Your task to perform on an android device: set an alarm Image 0: 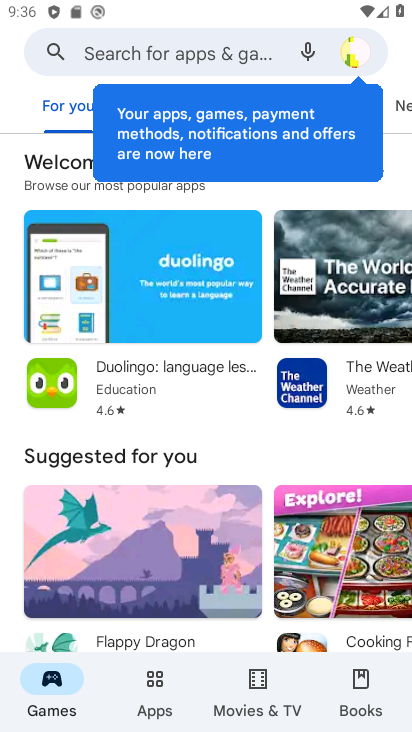
Step 0: press home button
Your task to perform on an android device: set an alarm Image 1: 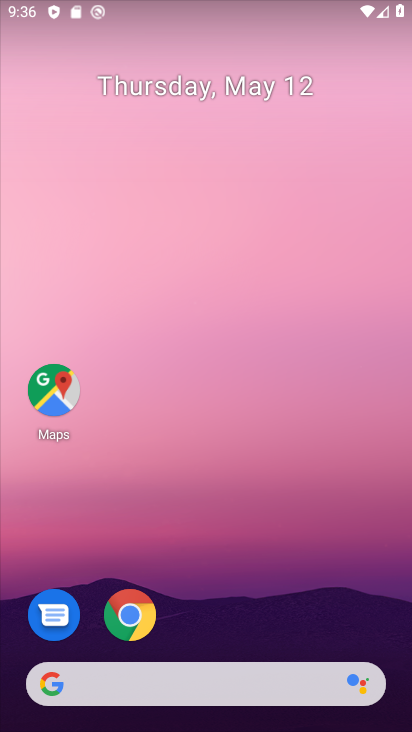
Step 1: drag from (284, 480) to (275, 108)
Your task to perform on an android device: set an alarm Image 2: 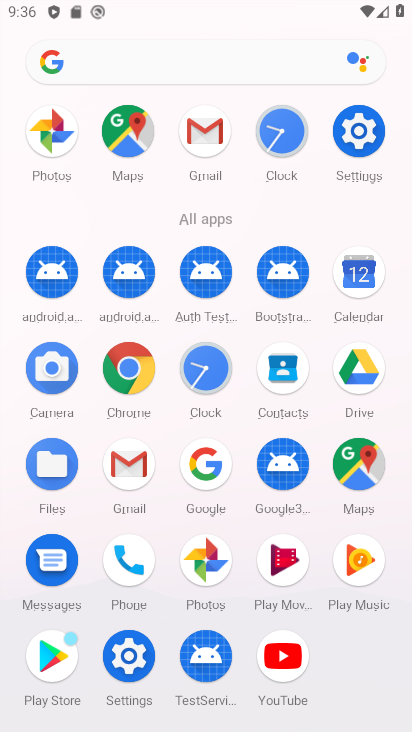
Step 2: click (211, 367)
Your task to perform on an android device: set an alarm Image 3: 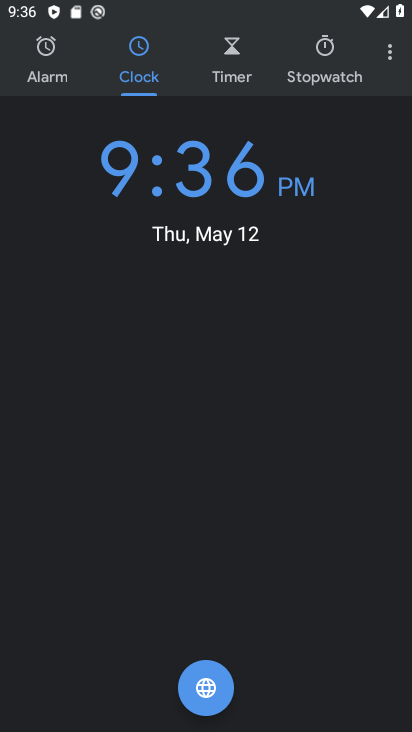
Step 3: click (61, 48)
Your task to perform on an android device: set an alarm Image 4: 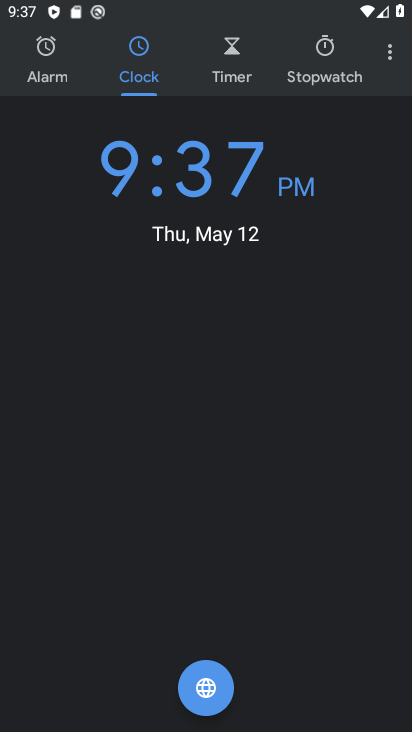
Step 4: click (57, 53)
Your task to perform on an android device: set an alarm Image 5: 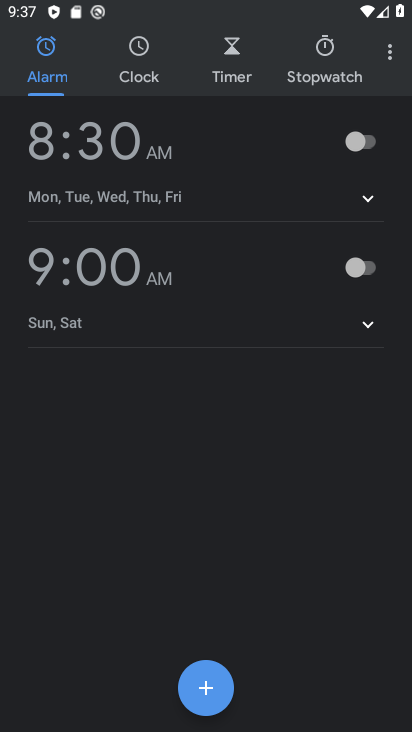
Step 5: click (208, 678)
Your task to perform on an android device: set an alarm Image 6: 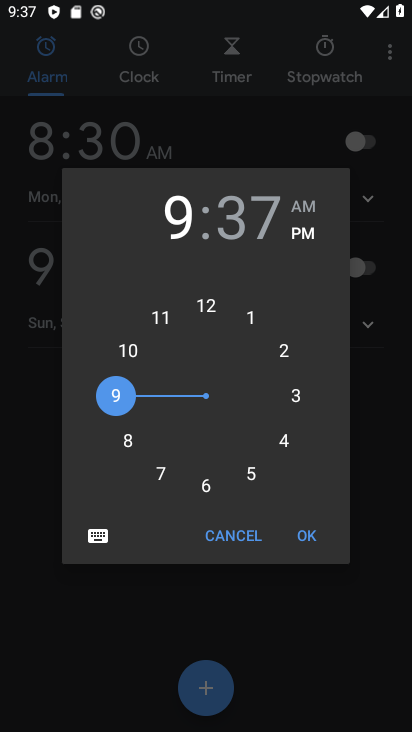
Step 6: click (307, 522)
Your task to perform on an android device: set an alarm Image 7: 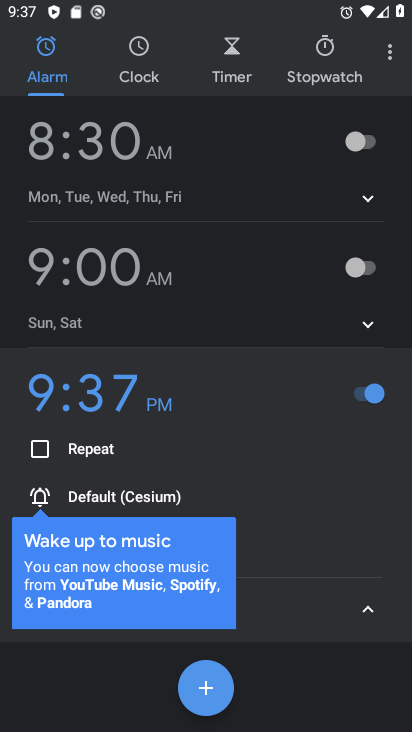
Step 7: task complete